Your task to perform on an android device: turn off improve location accuracy Image 0: 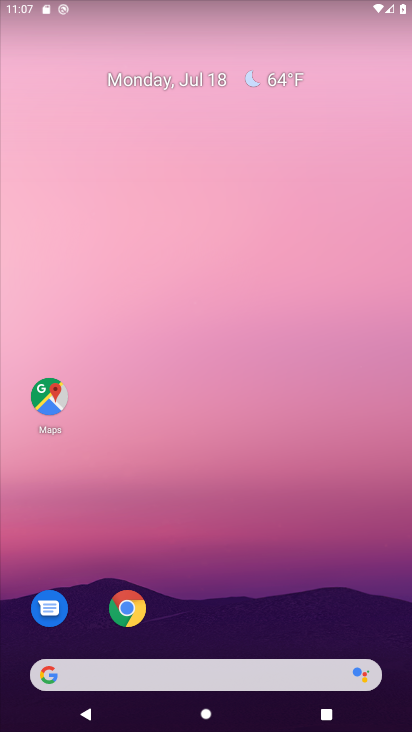
Step 0: drag from (213, 583) to (154, 52)
Your task to perform on an android device: turn off improve location accuracy Image 1: 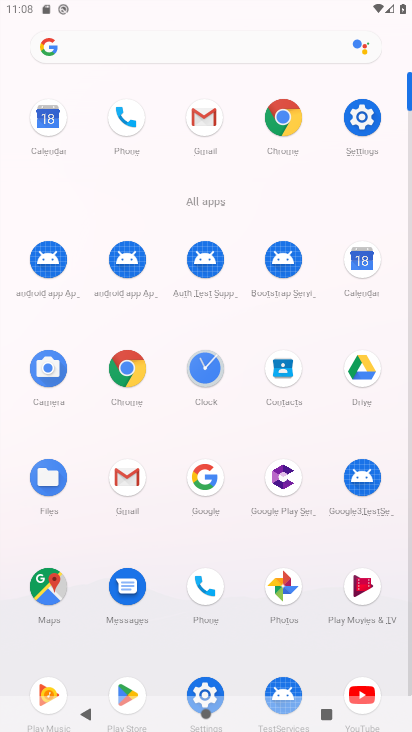
Step 1: drag from (233, 195) to (269, 16)
Your task to perform on an android device: turn off improve location accuracy Image 2: 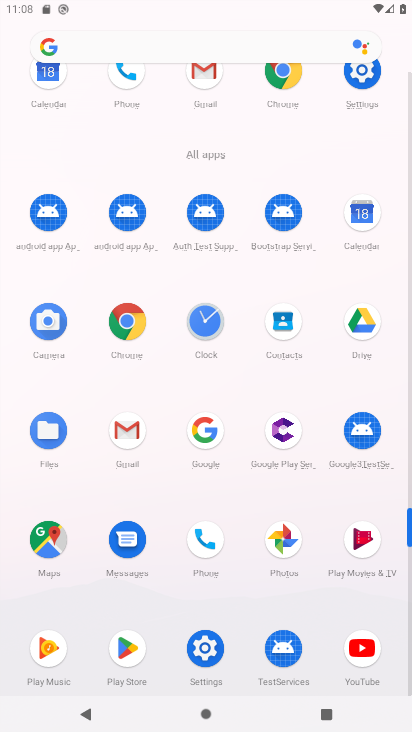
Step 2: click (196, 655)
Your task to perform on an android device: turn off improve location accuracy Image 3: 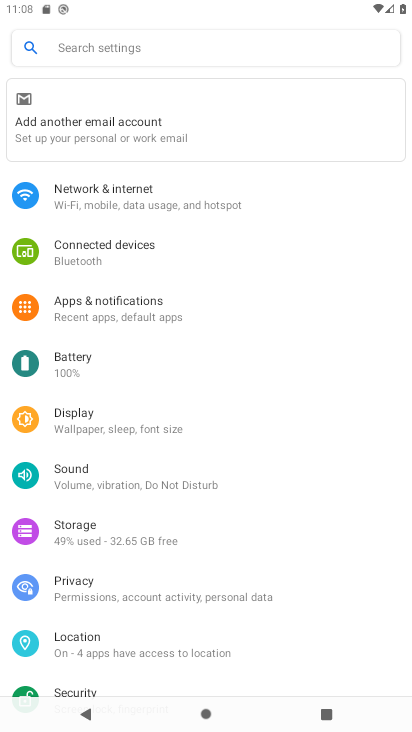
Step 3: click (93, 650)
Your task to perform on an android device: turn off improve location accuracy Image 4: 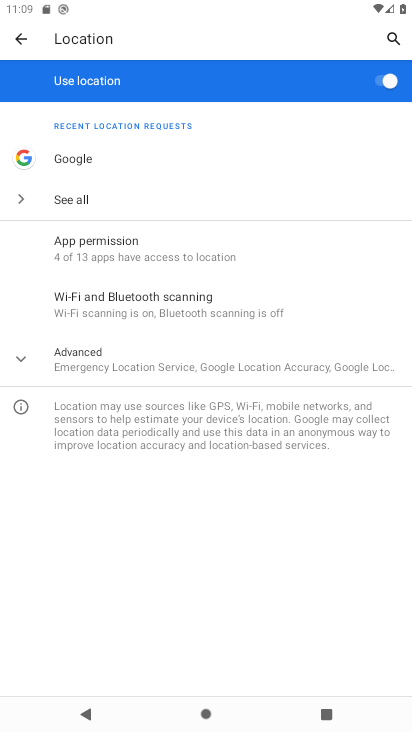
Step 4: click (142, 366)
Your task to perform on an android device: turn off improve location accuracy Image 5: 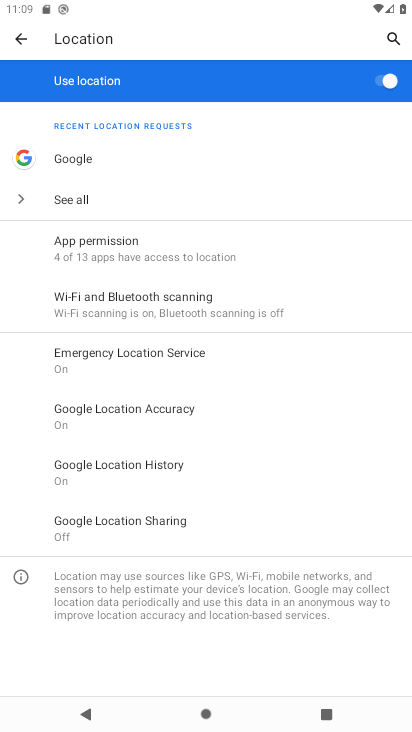
Step 5: click (174, 409)
Your task to perform on an android device: turn off improve location accuracy Image 6: 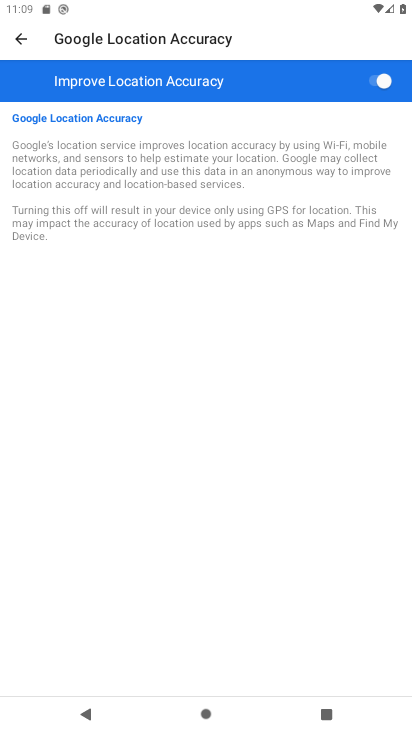
Step 6: click (372, 77)
Your task to perform on an android device: turn off improve location accuracy Image 7: 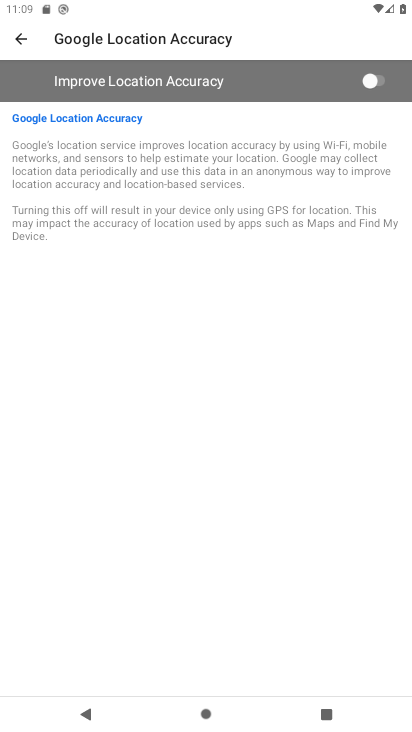
Step 7: task complete